Your task to perform on an android device: Go to Android settings Image 0: 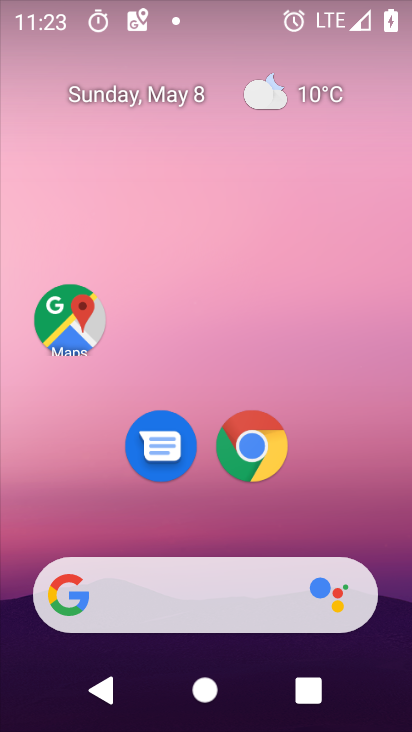
Step 0: drag from (351, 349) to (324, 4)
Your task to perform on an android device: Go to Android settings Image 1: 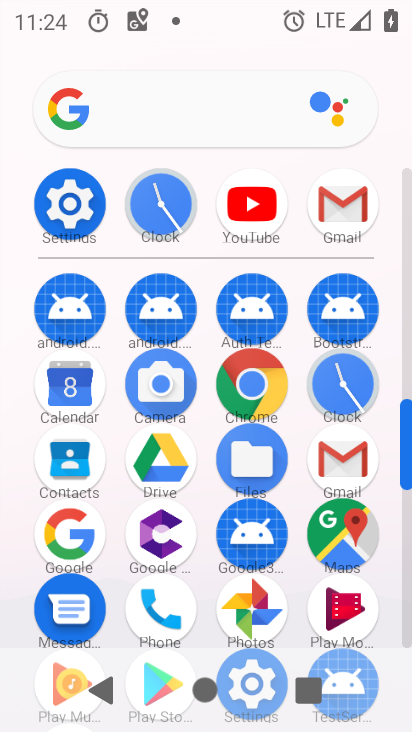
Step 1: click (76, 206)
Your task to perform on an android device: Go to Android settings Image 2: 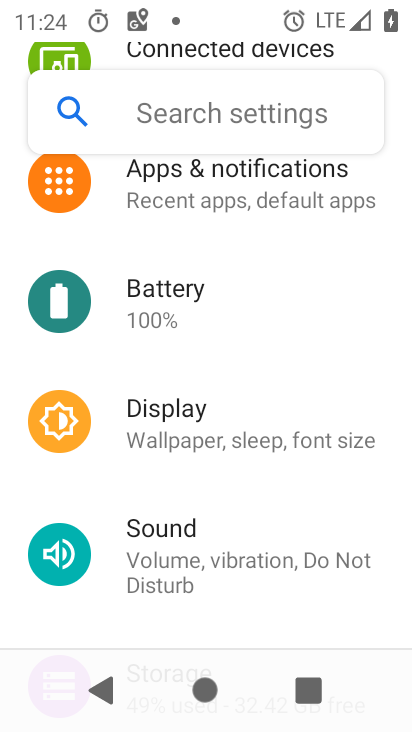
Step 2: task complete